Your task to perform on an android device: clear history in the chrome app Image 0: 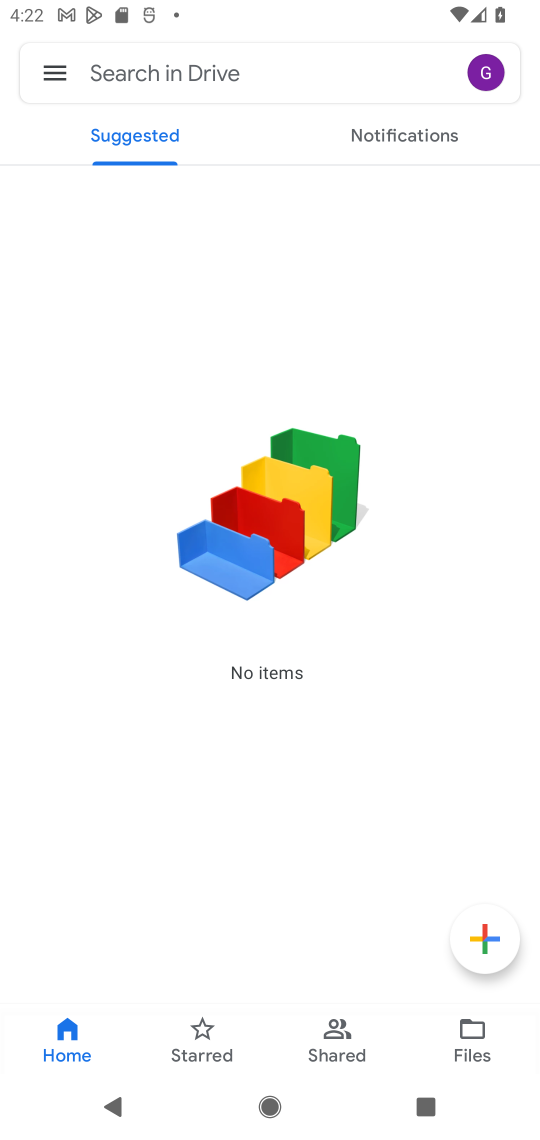
Step 0: task complete